Your task to perform on an android device: Go to wifi settings Image 0: 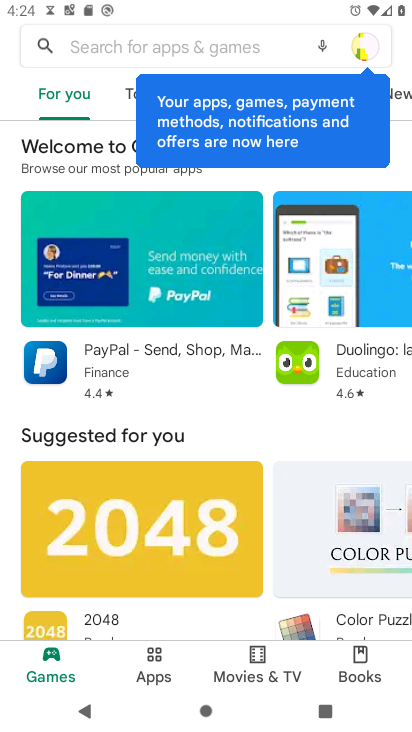
Step 0: press home button
Your task to perform on an android device: Go to wifi settings Image 1: 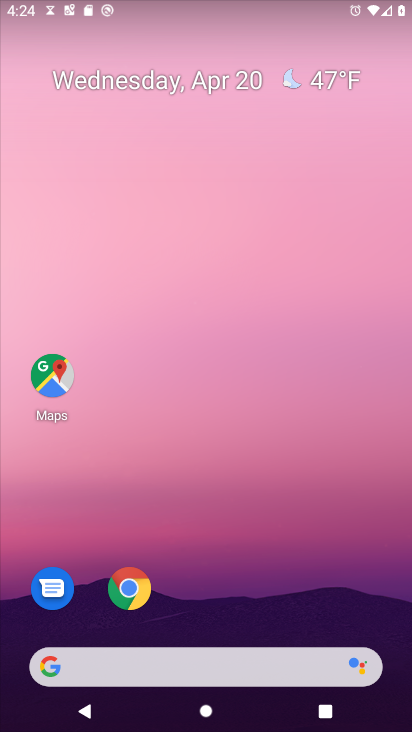
Step 1: drag from (209, 563) to (279, 0)
Your task to perform on an android device: Go to wifi settings Image 2: 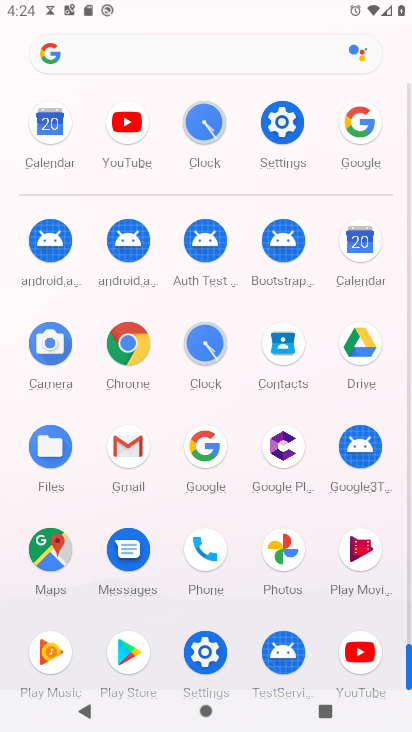
Step 2: click (276, 120)
Your task to perform on an android device: Go to wifi settings Image 3: 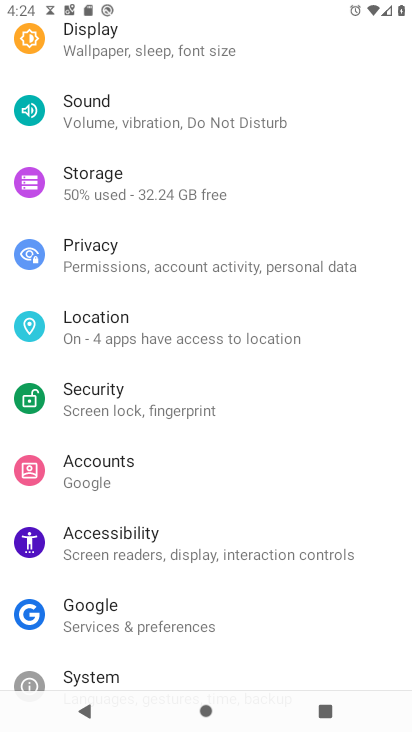
Step 3: drag from (276, 120) to (315, 170)
Your task to perform on an android device: Go to wifi settings Image 4: 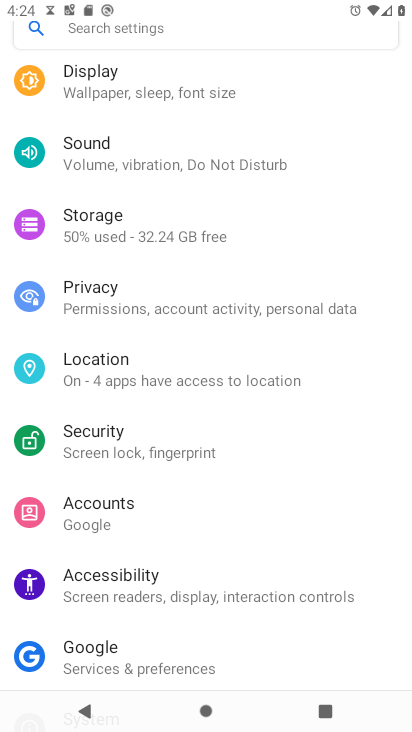
Step 4: drag from (307, 141) to (333, 180)
Your task to perform on an android device: Go to wifi settings Image 5: 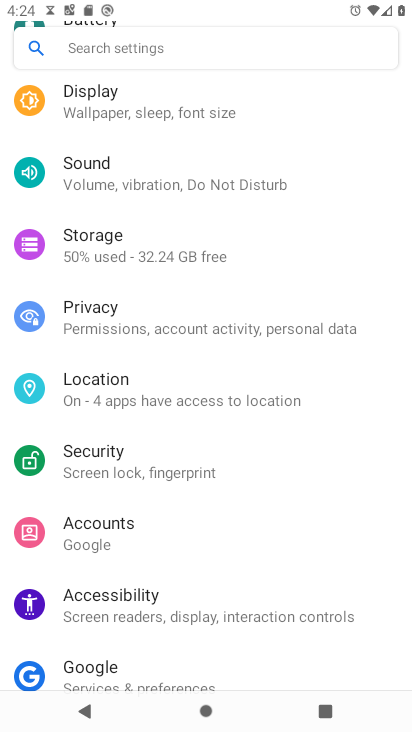
Step 5: drag from (320, 160) to (334, 237)
Your task to perform on an android device: Go to wifi settings Image 6: 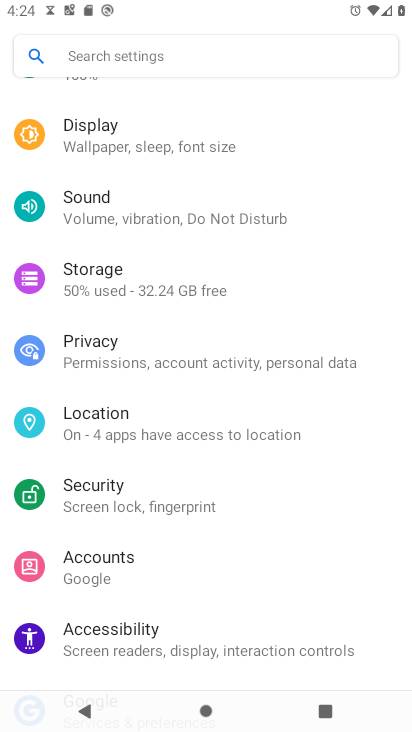
Step 6: drag from (305, 157) to (333, 219)
Your task to perform on an android device: Go to wifi settings Image 7: 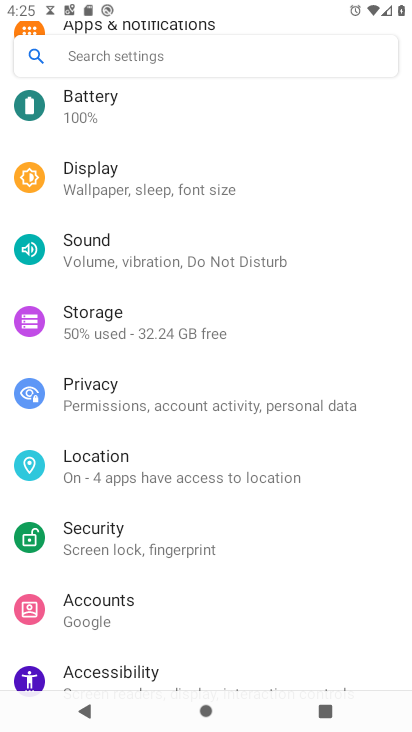
Step 7: drag from (318, 159) to (334, 231)
Your task to perform on an android device: Go to wifi settings Image 8: 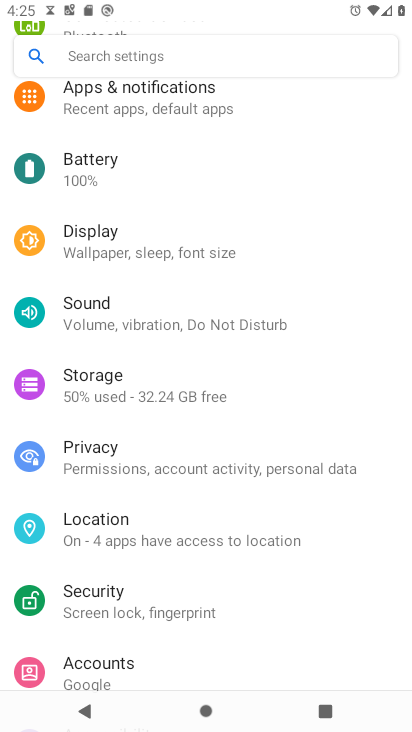
Step 8: drag from (312, 177) to (334, 241)
Your task to perform on an android device: Go to wifi settings Image 9: 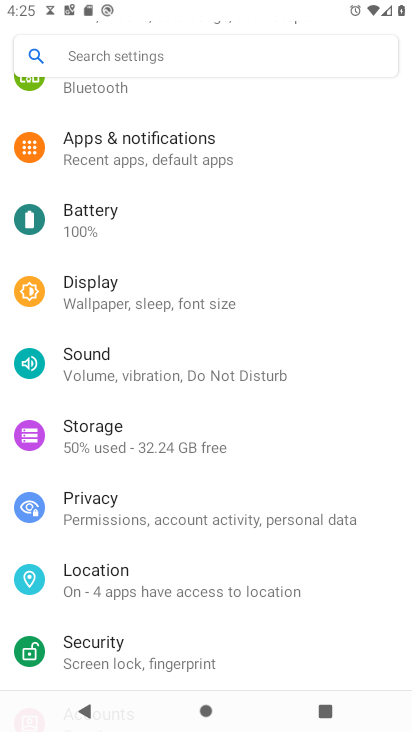
Step 9: drag from (295, 172) to (314, 218)
Your task to perform on an android device: Go to wifi settings Image 10: 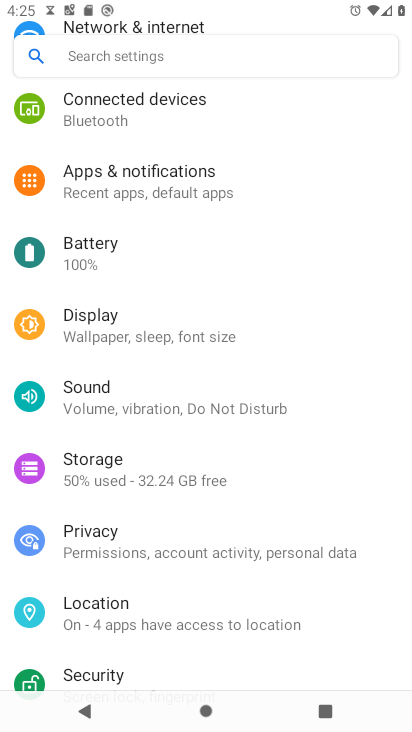
Step 10: drag from (299, 174) to (306, 222)
Your task to perform on an android device: Go to wifi settings Image 11: 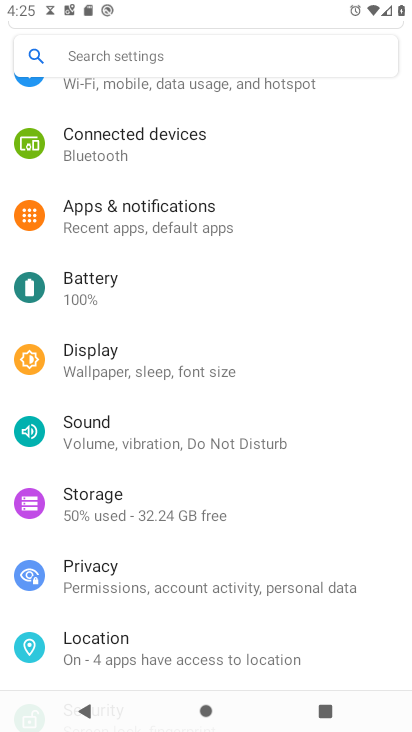
Step 11: drag from (286, 174) to (289, 226)
Your task to perform on an android device: Go to wifi settings Image 12: 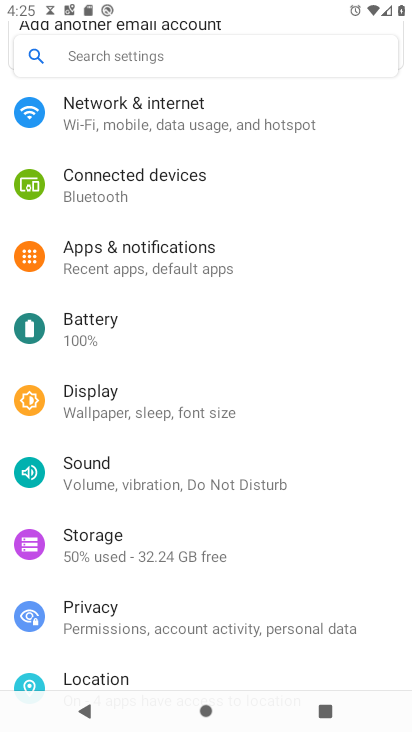
Step 12: click (273, 135)
Your task to perform on an android device: Go to wifi settings Image 13: 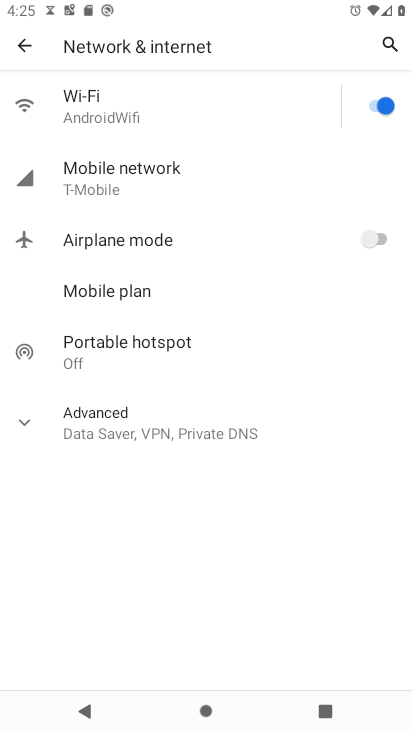
Step 13: click (100, 98)
Your task to perform on an android device: Go to wifi settings Image 14: 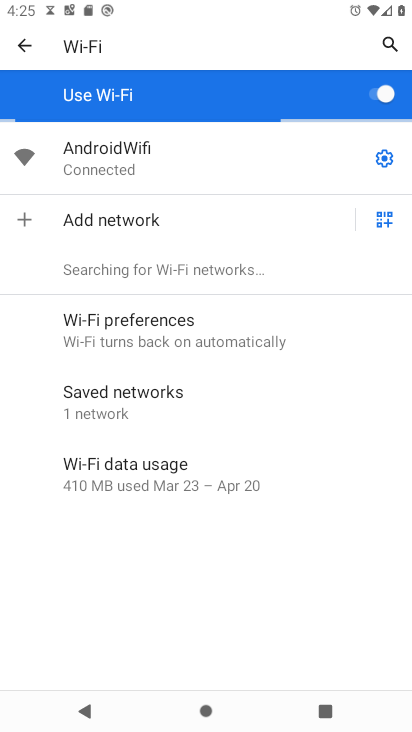
Step 14: task complete